Your task to perform on an android device: When is my next appointment? Image 0: 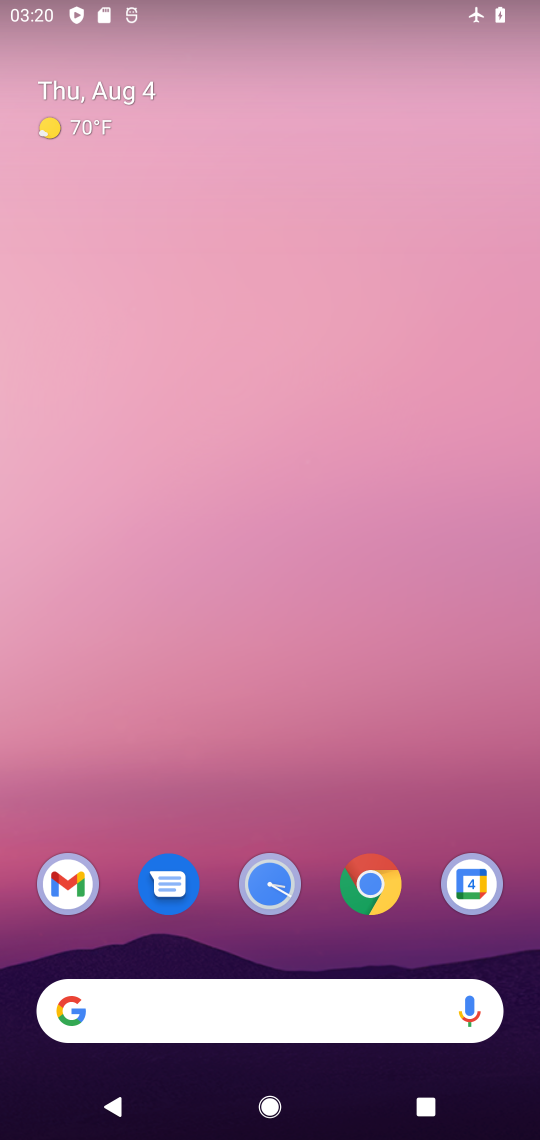
Step 0: press home button
Your task to perform on an android device: When is my next appointment? Image 1: 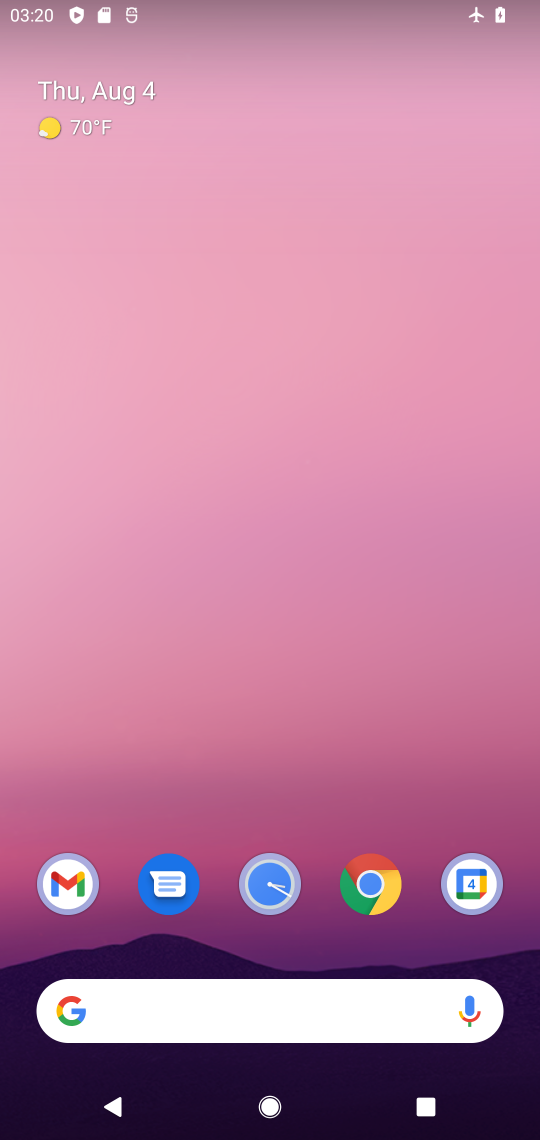
Step 1: drag from (406, 799) to (437, 310)
Your task to perform on an android device: When is my next appointment? Image 2: 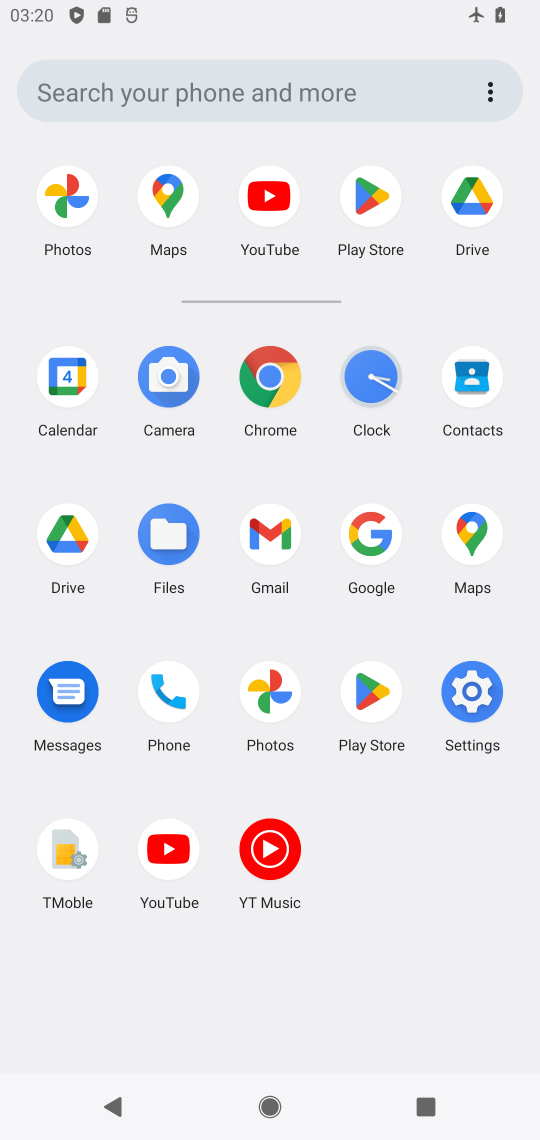
Step 2: click (74, 381)
Your task to perform on an android device: When is my next appointment? Image 3: 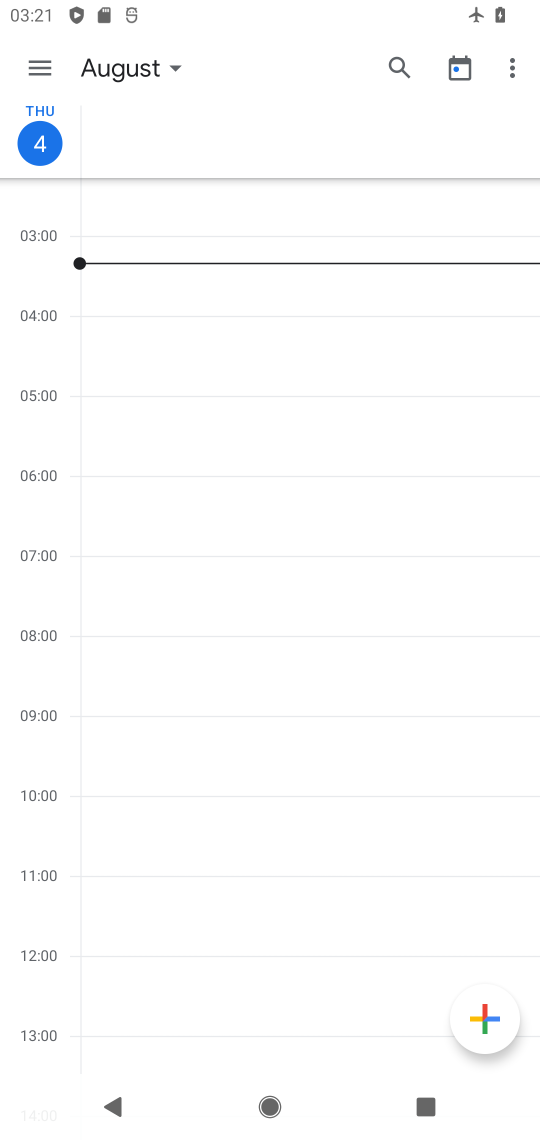
Step 3: click (42, 62)
Your task to perform on an android device: When is my next appointment? Image 4: 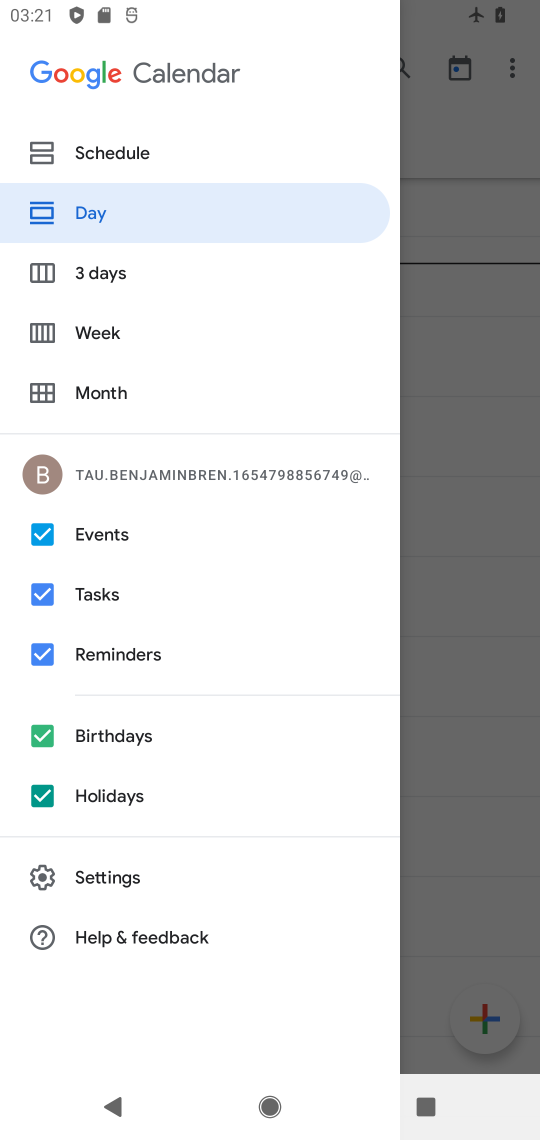
Step 4: click (159, 146)
Your task to perform on an android device: When is my next appointment? Image 5: 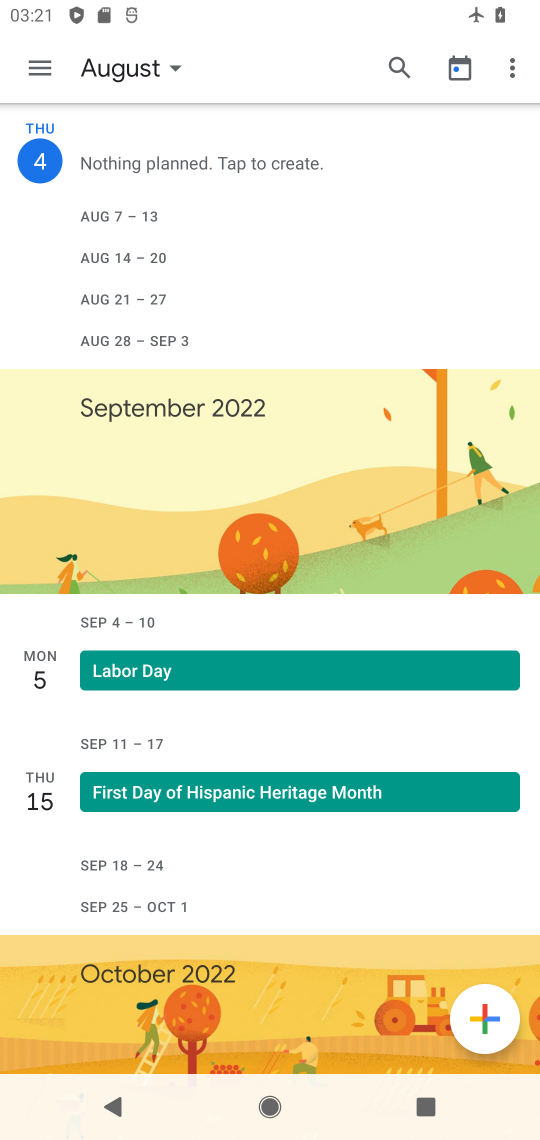
Step 5: task complete